Your task to perform on an android device: Open the map Image 0: 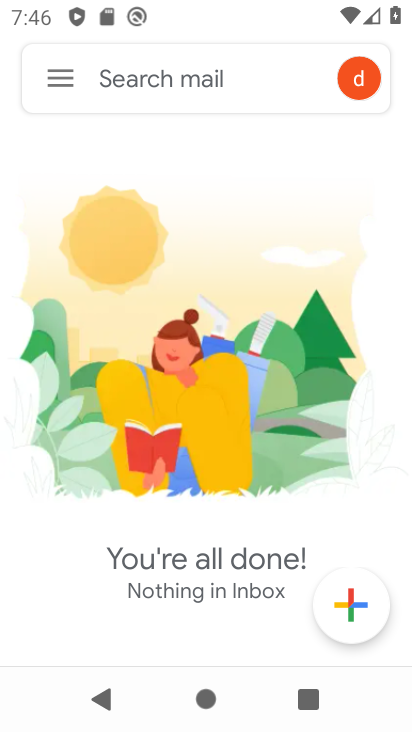
Step 0: press back button
Your task to perform on an android device: Open the map Image 1: 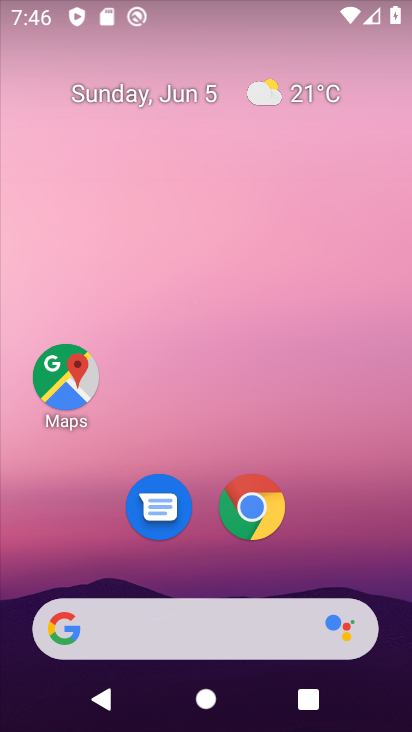
Step 1: click (62, 376)
Your task to perform on an android device: Open the map Image 2: 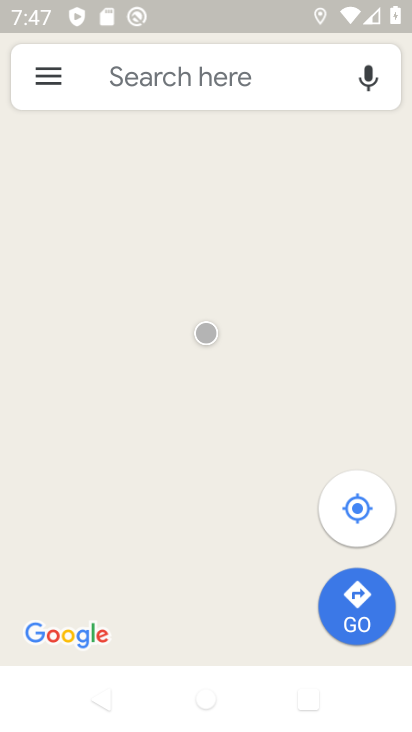
Step 2: task complete